Your task to perform on an android device: turn notification dots on Image 0: 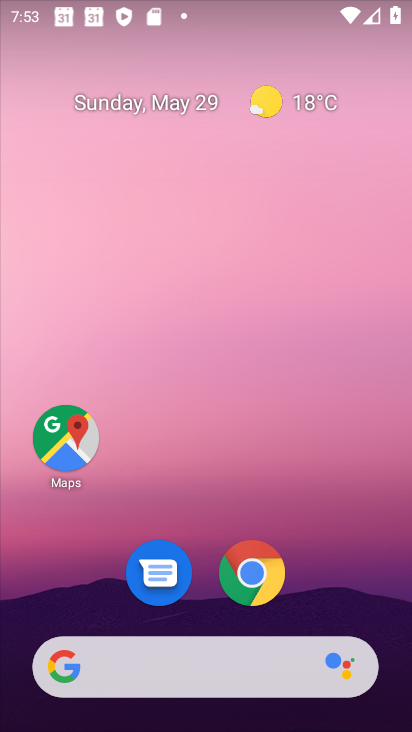
Step 0: drag from (154, 418) to (270, 93)
Your task to perform on an android device: turn notification dots on Image 1: 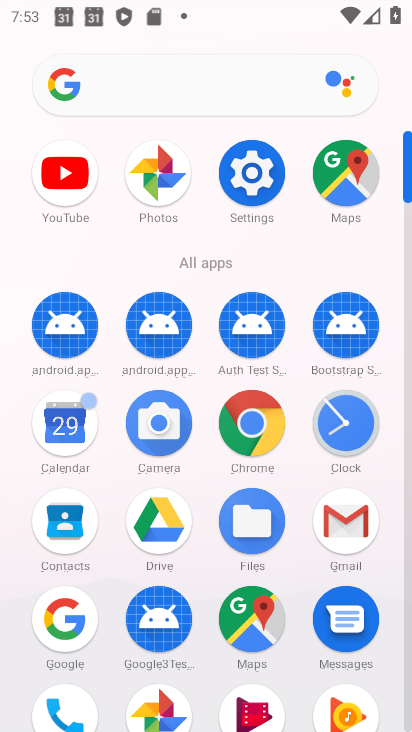
Step 1: drag from (125, 625) to (261, 290)
Your task to perform on an android device: turn notification dots on Image 2: 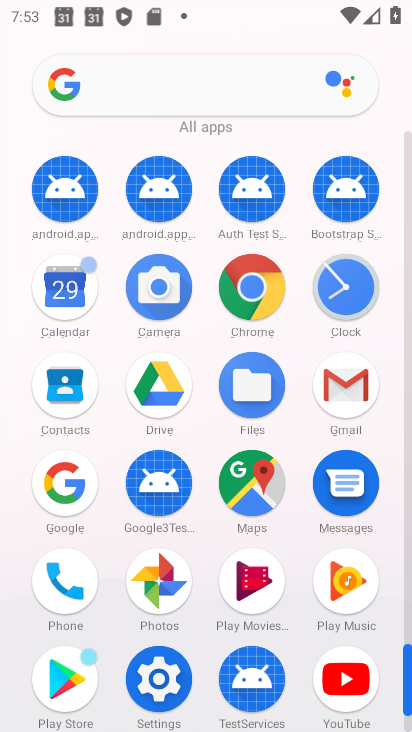
Step 2: click (162, 665)
Your task to perform on an android device: turn notification dots on Image 3: 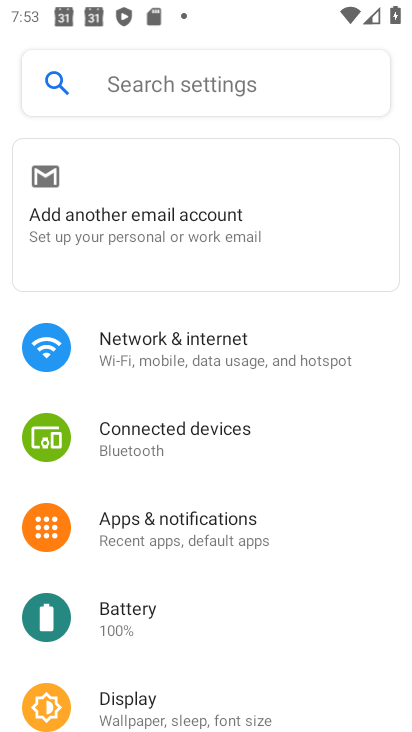
Step 3: click (211, 546)
Your task to perform on an android device: turn notification dots on Image 4: 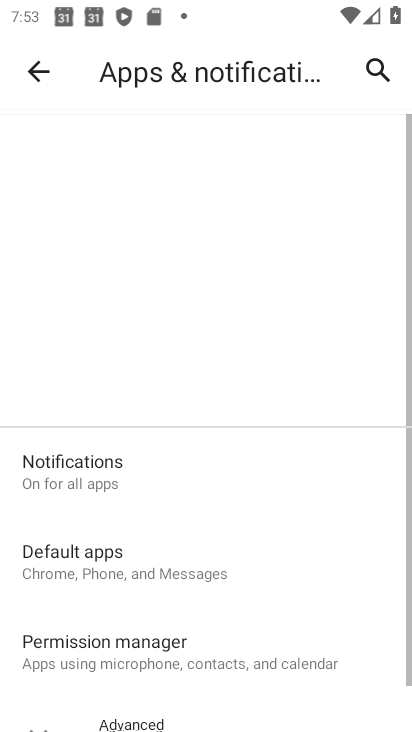
Step 4: drag from (217, 606) to (355, 285)
Your task to perform on an android device: turn notification dots on Image 5: 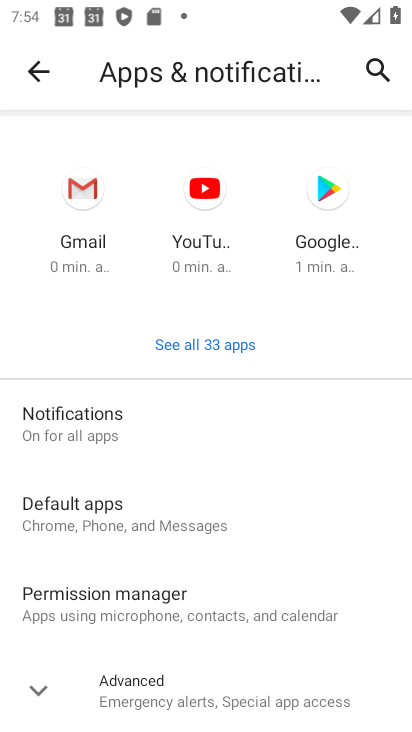
Step 5: click (163, 422)
Your task to perform on an android device: turn notification dots on Image 6: 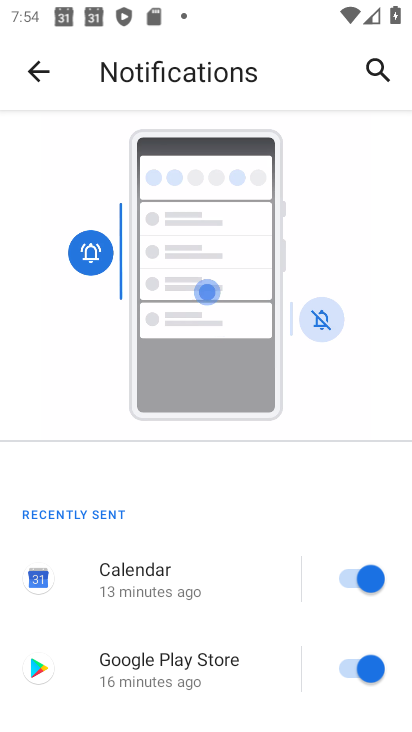
Step 6: drag from (104, 639) to (233, 164)
Your task to perform on an android device: turn notification dots on Image 7: 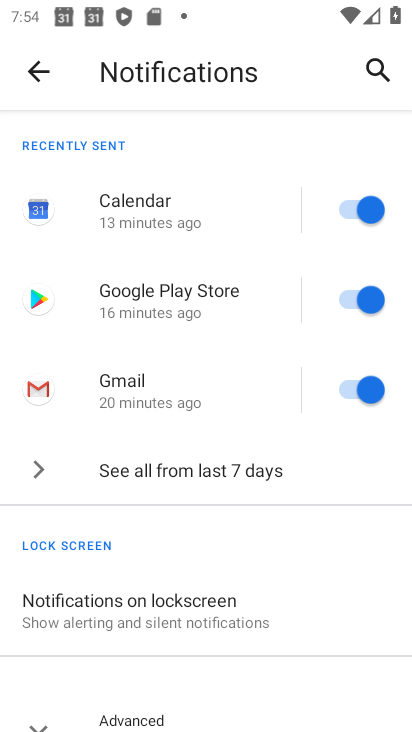
Step 7: drag from (148, 664) to (261, 296)
Your task to perform on an android device: turn notification dots on Image 8: 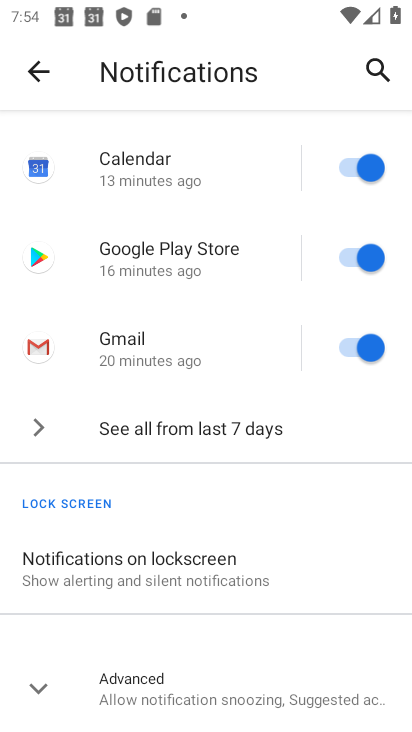
Step 8: click (164, 670)
Your task to perform on an android device: turn notification dots on Image 9: 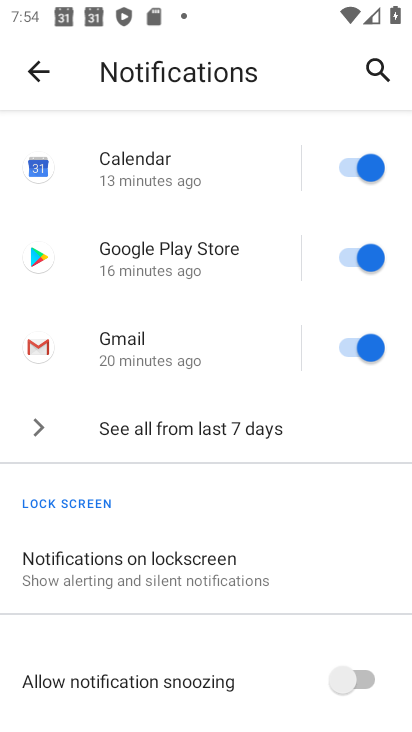
Step 9: task complete